Your task to perform on an android device: Go to Maps Image 0: 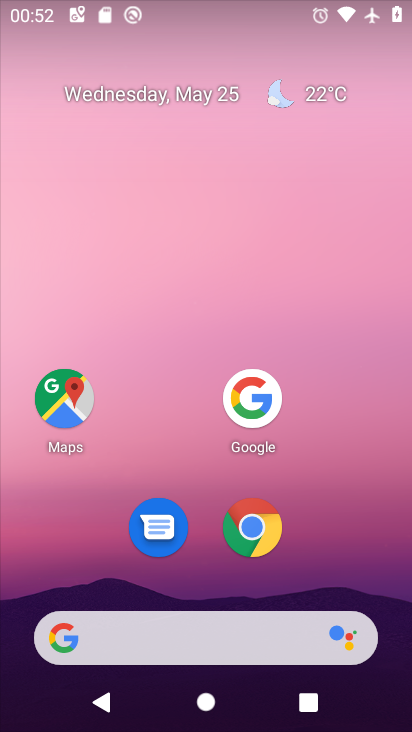
Step 0: press home button
Your task to perform on an android device: Go to Maps Image 1: 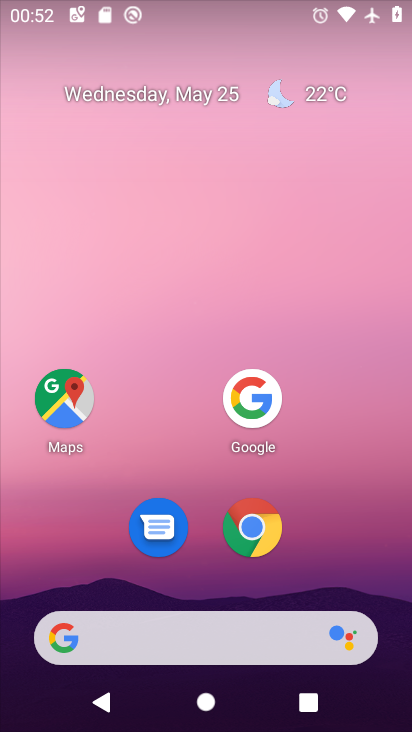
Step 1: click (64, 404)
Your task to perform on an android device: Go to Maps Image 2: 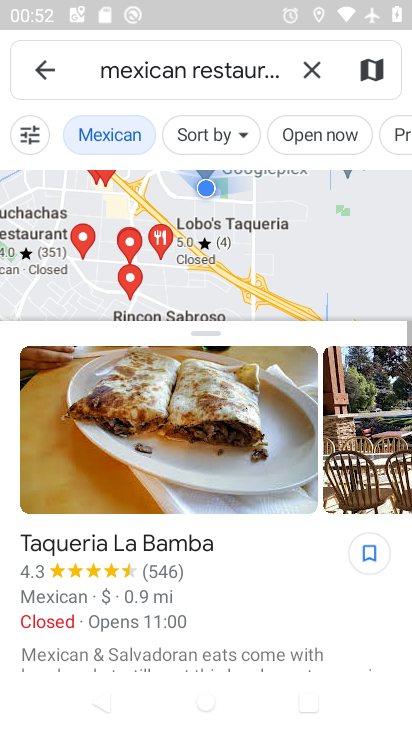
Step 2: click (45, 63)
Your task to perform on an android device: Go to Maps Image 3: 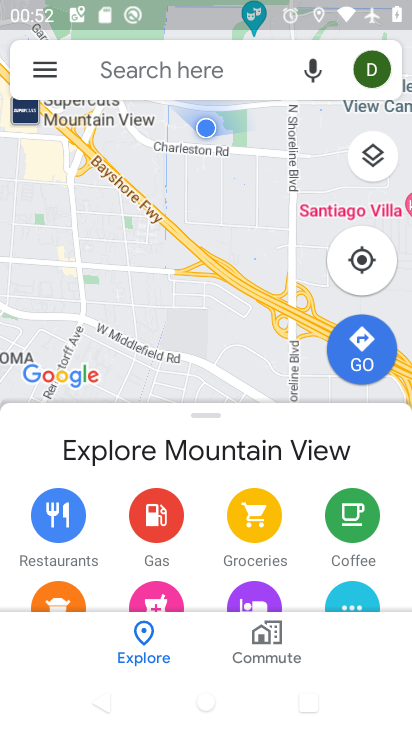
Step 3: task complete